Your task to perform on an android device: Show me recent news Image 0: 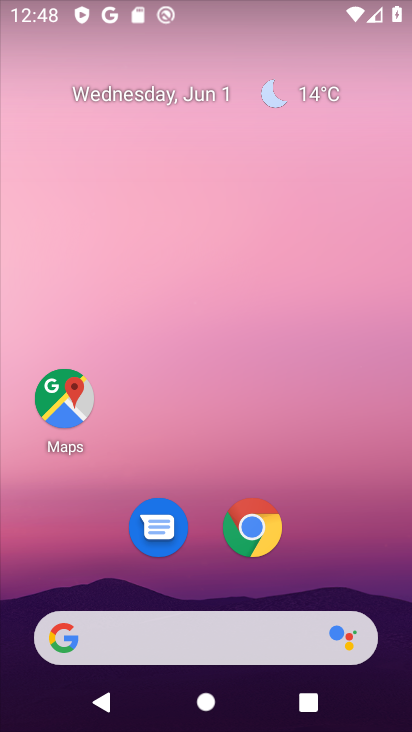
Step 0: drag from (241, 527) to (327, 145)
Your task to perform on an android device: Show me recent news Image 1: 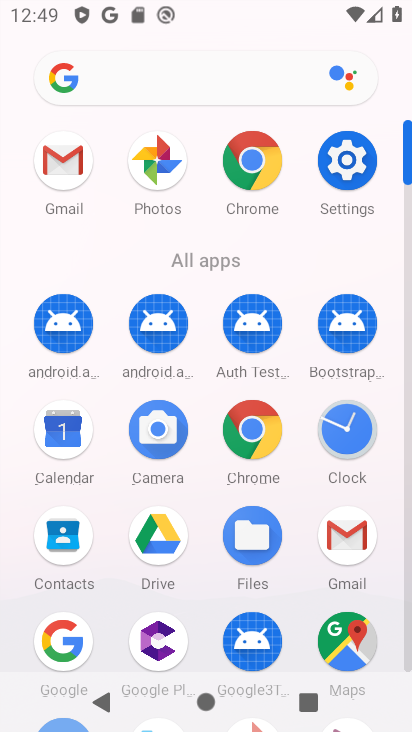
Step 1: drag from (181, 553) to (198, 339)
Your task to perform on an android device: Show me recent news Image 2: 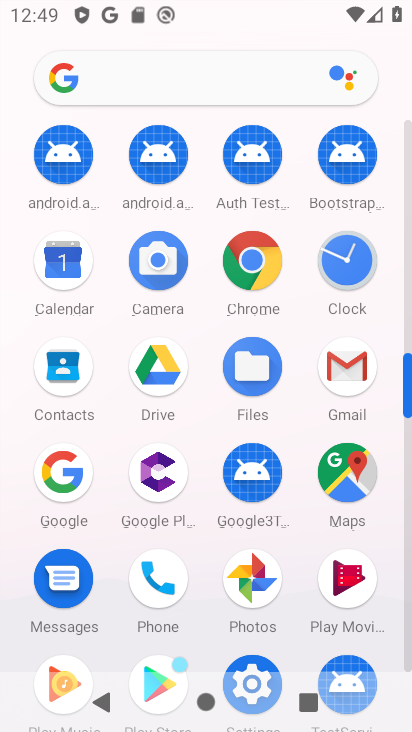
Step 2: click (77, 483)
Your task to perform on an android device: Show me recent news Image 3: 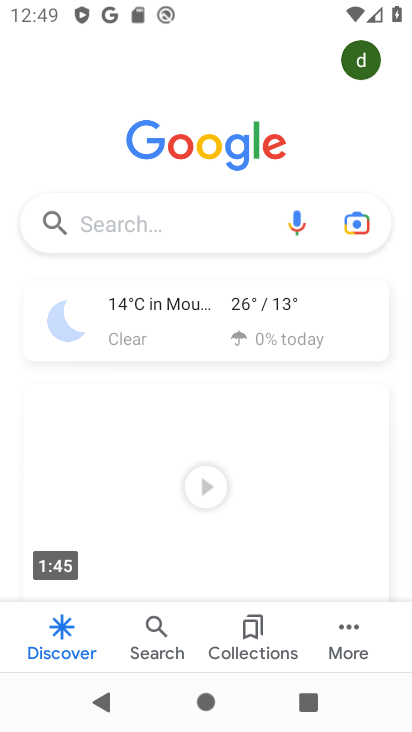
Step 3: click (146, 229)
Your task to perform on an android device: Show me recent news Image 4: 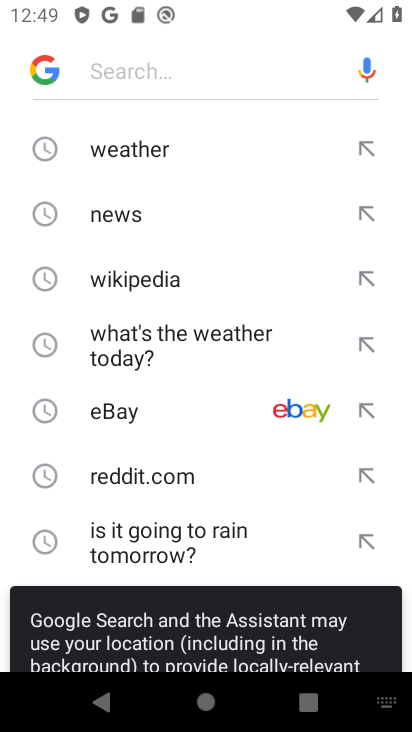
Step 4: click (155, 209)
Your task to perform on an android device: Show me recent news Image 5: 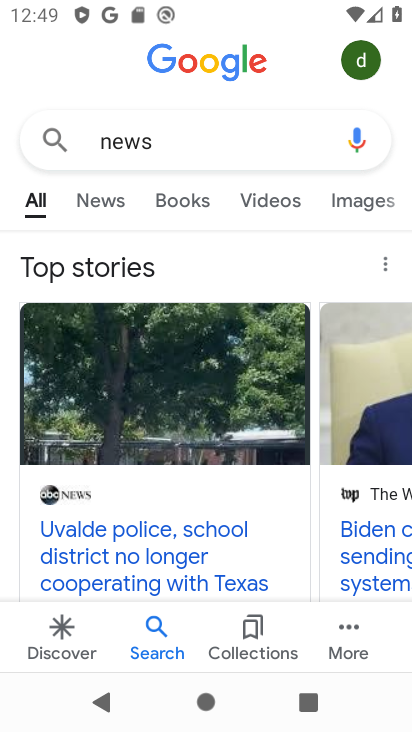
Step 5: click (111, 199)
Your task to perform on an android device: Show me recent news Image 6: 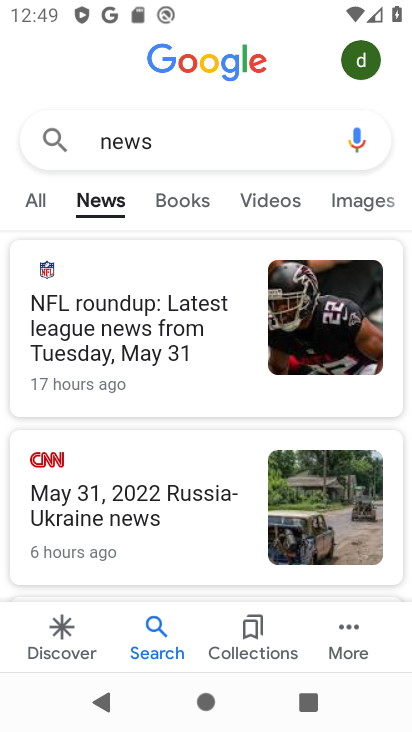
Step 6: task complete